Your task to perform on an android device: stop showing notifications on the lock screen Image 0: 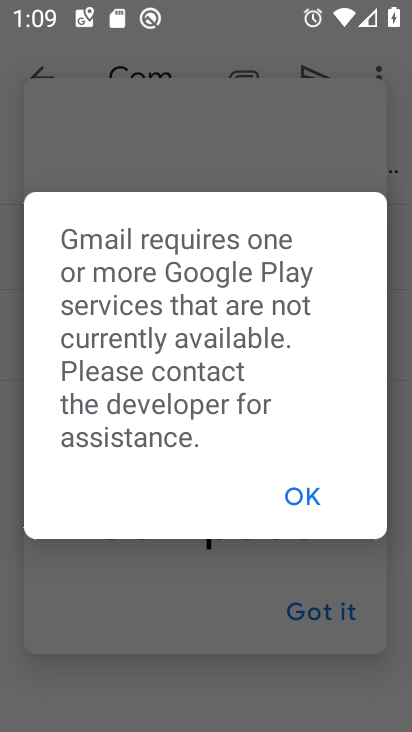
Step 0: press home button
Your task to perform on an android device: stop showing notifications on the lock screen Image 1: 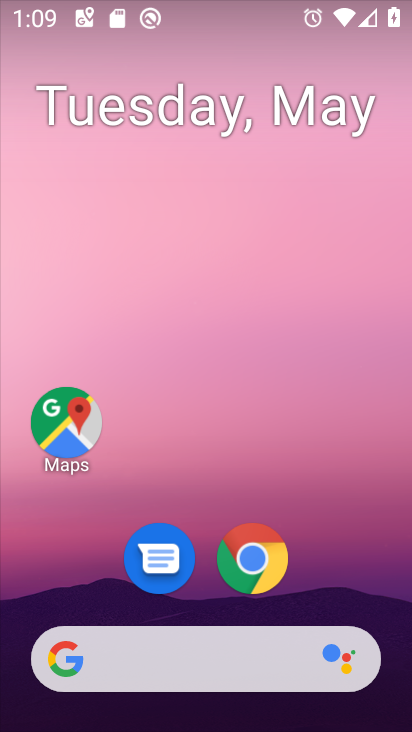
Step 1: drag from (363, 582) to (316, 196)
Your task to perform on an android device: stop showing notifications on the lock screen Image 2: 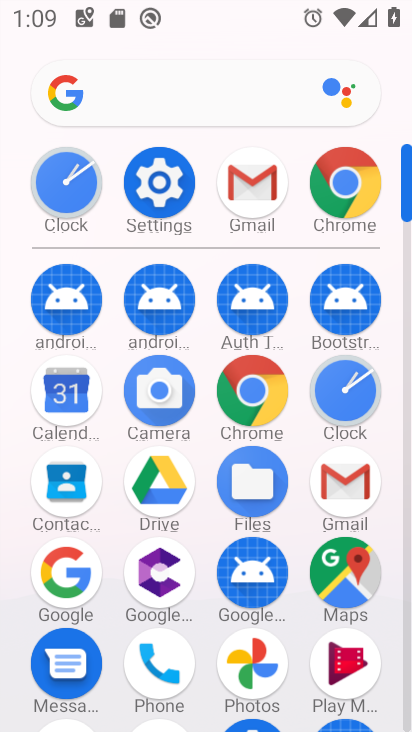
Step 2: click (166, 191)
Your task to perform on an android device: stop showing notifications on the lock screen Image 3: 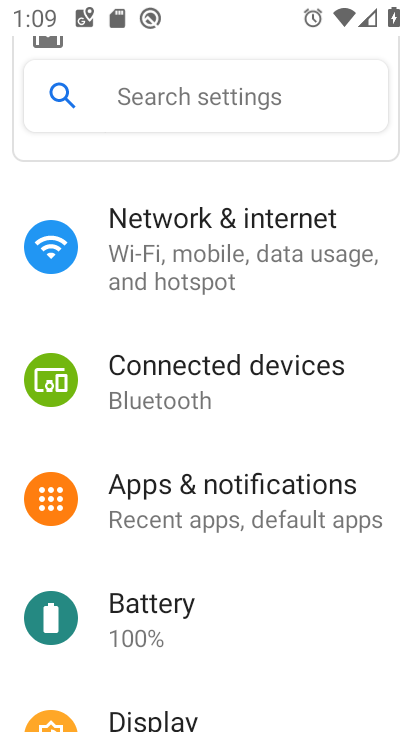
Step 3: click (200, 485)
Your task to perform on an android device: stop showing notifications on the lock screen Image 4: 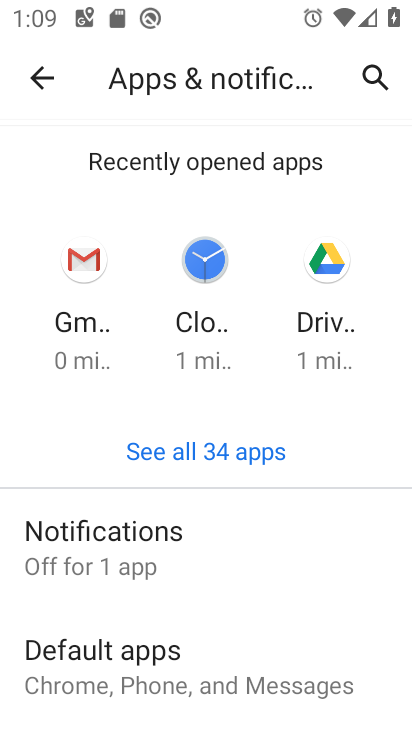
Step 4: click (217, 554)
Your task to perform on an android device: stop showing notifications on the lock screen Image 5: 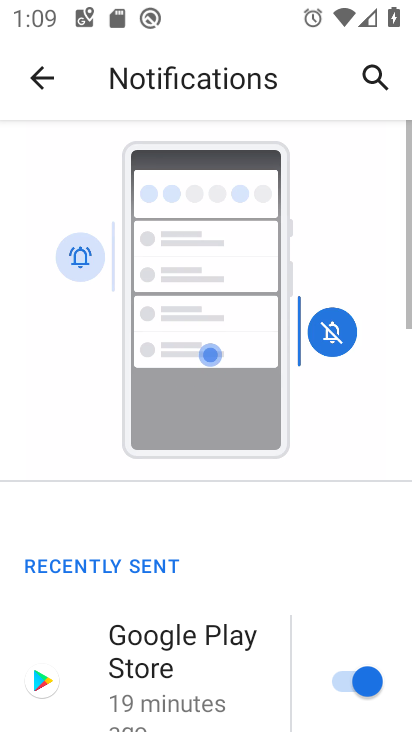
Step 5: drag from (228, 670) to (193, 123)
Your task to perform on an android device: stop showing notifications on the lock screen Image 6: 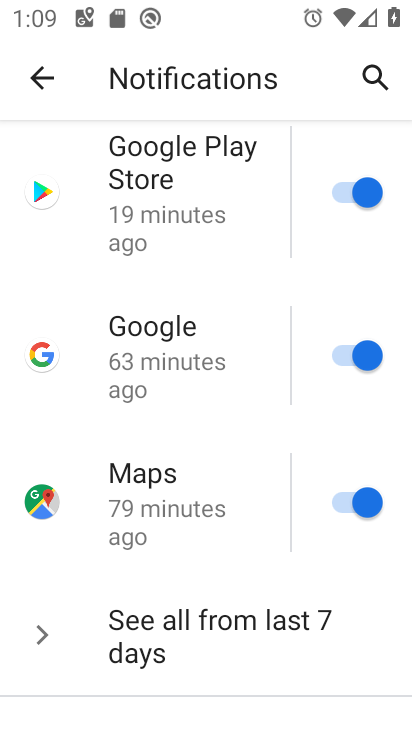
Step 6: drag from (234, 688) to (217, 202)
Your task to perform on an android device: stop showing notifications on the lock screen Image 7: 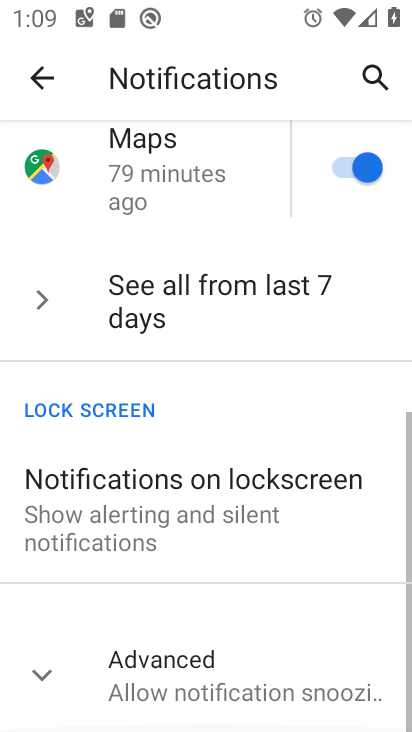
Step 7: click (253, 535)
Your task to perform on an android device: stop showing notifications on the lock screen Image 8: 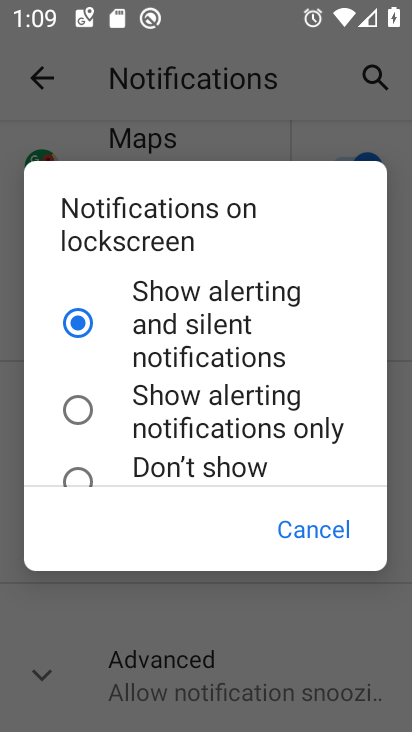
Step 8: click (229, 477)
Your task to perform on an android device: stop showing notifications on the lock screen Image 9: 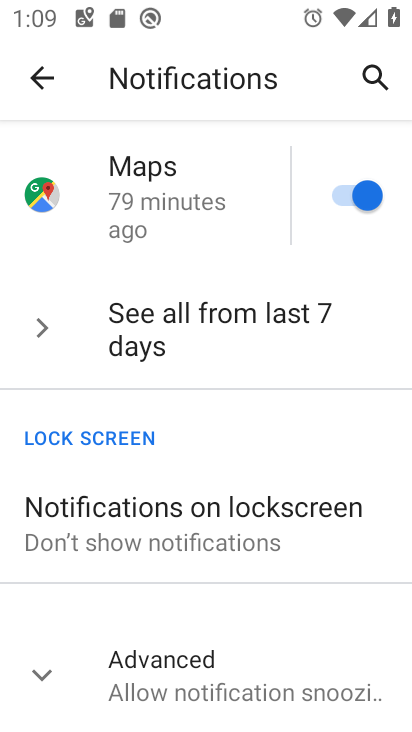
Step 9: task complete